Your task to perform on an android device: Go to settings Image 0: 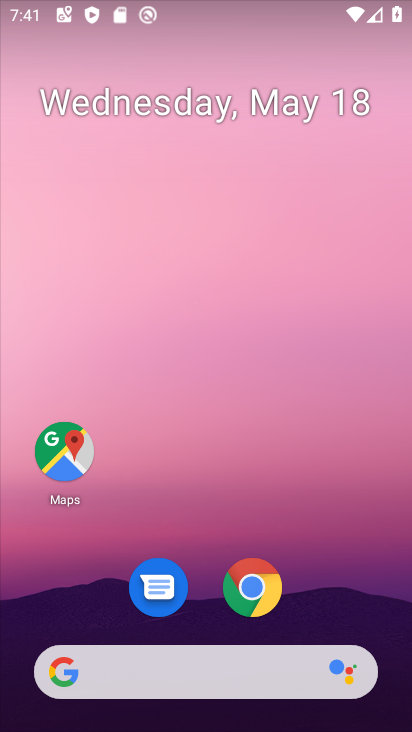
Step 0: drag from (203, 601) to (220, 77)
Your task to perform on an android device: Go to settings Image 1: 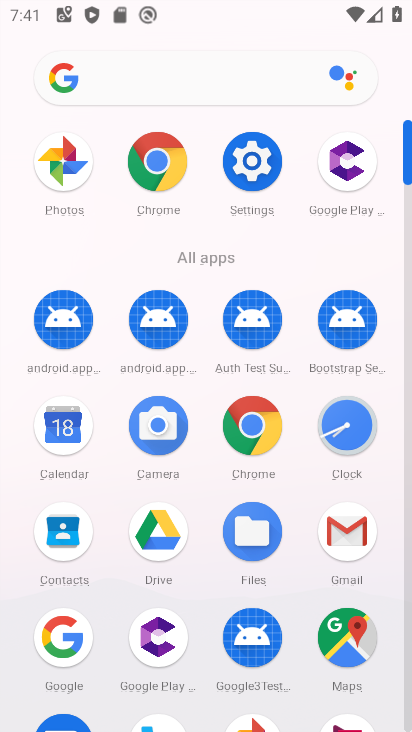
Step 1: click (260, 162)
Your task to perform on an android device: Go to settings Image 2: 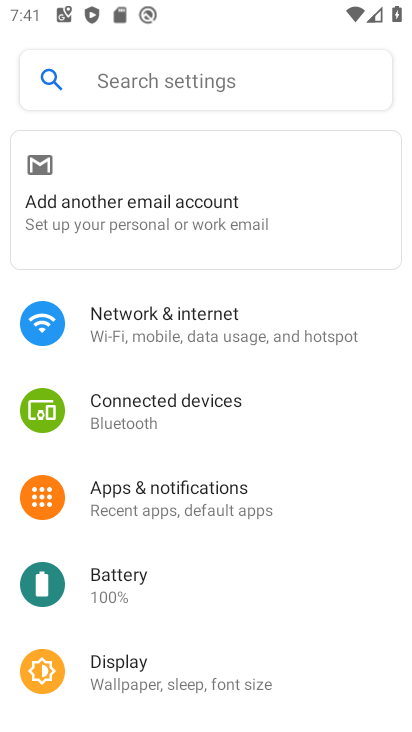
Step 2: task complete